Your task to perform on an android device: turn on data saver in the chrome app Image 0: 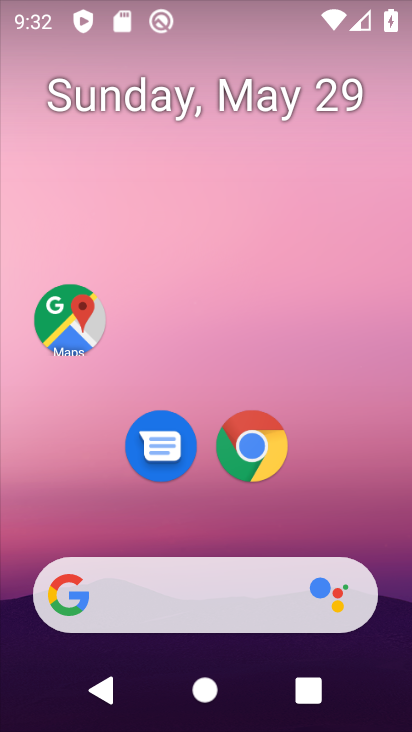
Step 0: click (250, 460)
Your task to perform on an android device: turn on data saver in the chrome app Image 1: 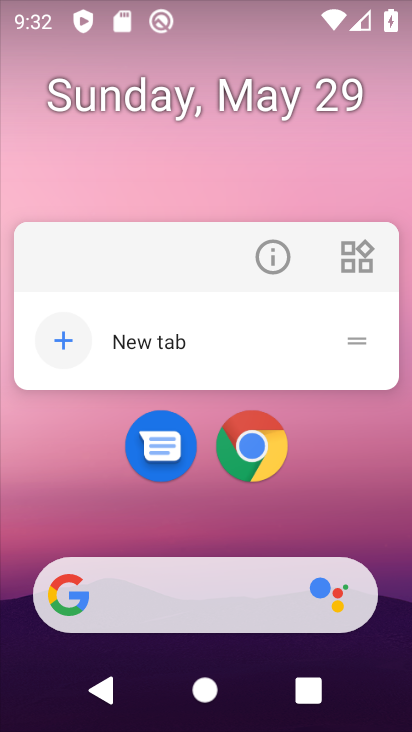
Step 1: click (268, 455)
Your task to perform on an android device: turn on data saver in the chrome app Image 2: 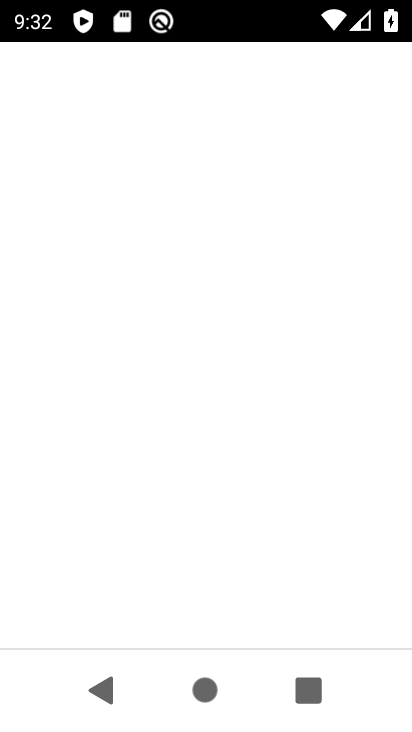
Step 2: click (257, 450)
Your task to perform on an android device: turn on data saver in the chrome app Image 3: 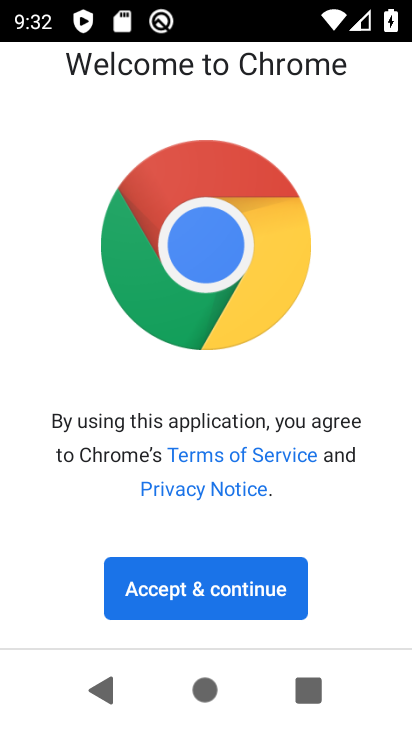
Step 3: click (242, 584)
Your task to perform on an android device: turn on data saver in the chrome app Image 4: 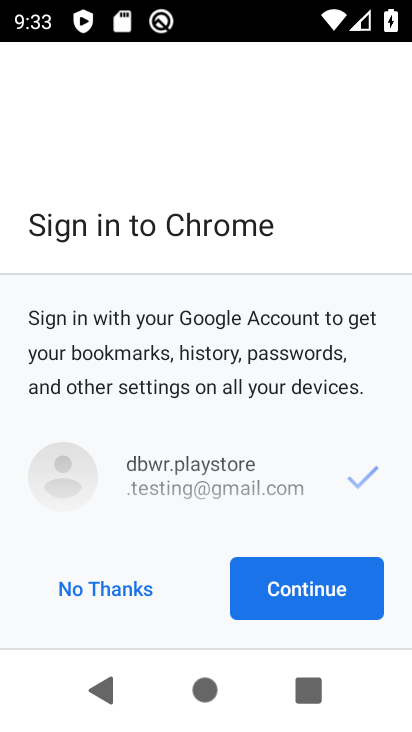
Step 4: click (281, 596)
Your task to perform on an android device: turn on data saver in the chrome app Image 5: 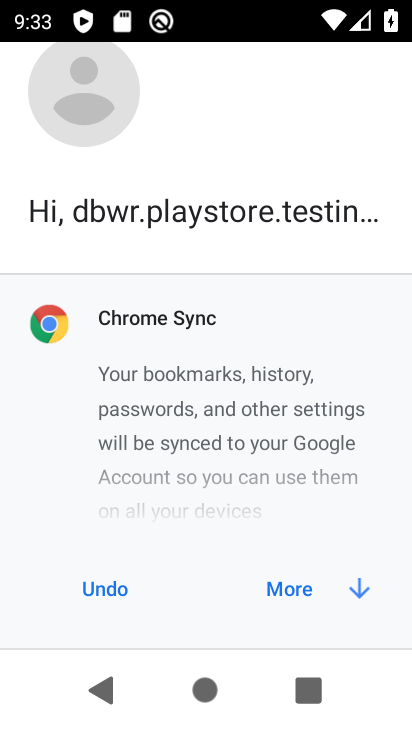
Step 5: click (297, 597)
Your task to perform on an android device: turn on data saver in the chrome app Image 6: 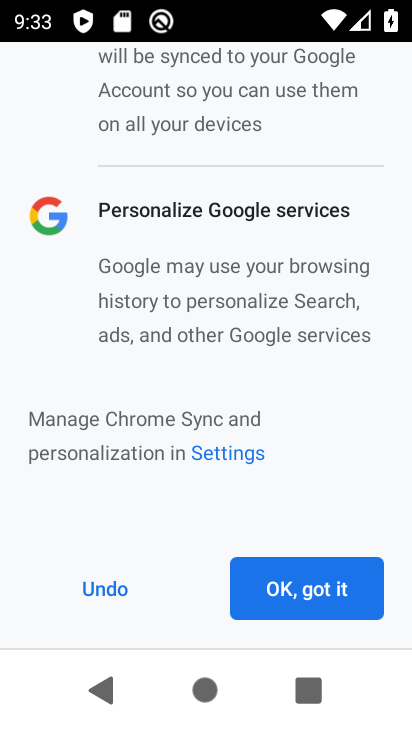
Step 6: click (297, 597)
Your task to perform on an android device: turn on data saver in the chrome app Image 7: 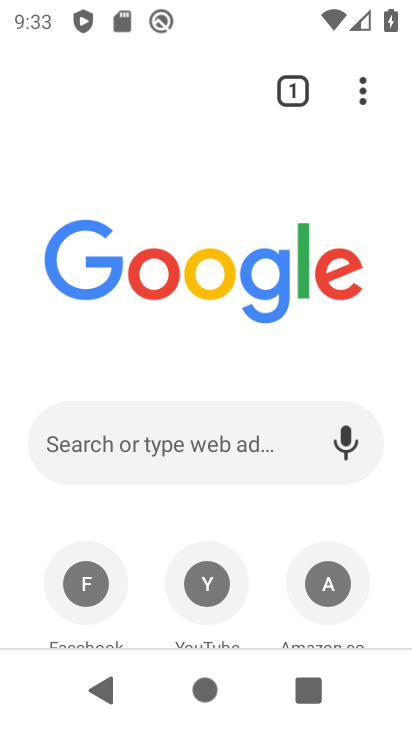
Step 7: click (362, 90)
Your task to perform on an android device: turn on data saver in the chrome app Image 8: 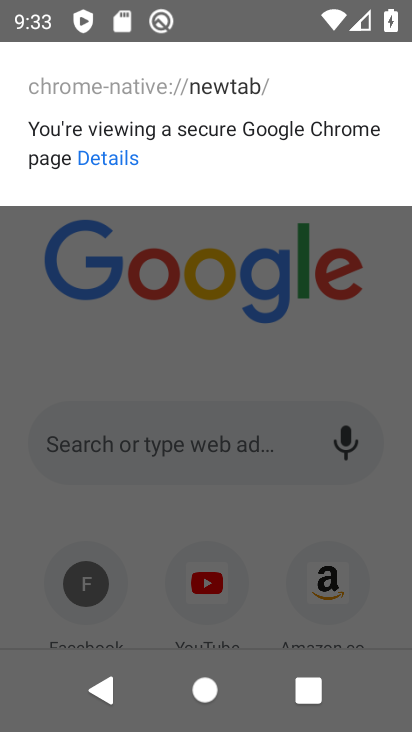
Step 8: click (383, 327)
Your task to perform on an android device: turn on data saver in the chrome app Image 9: 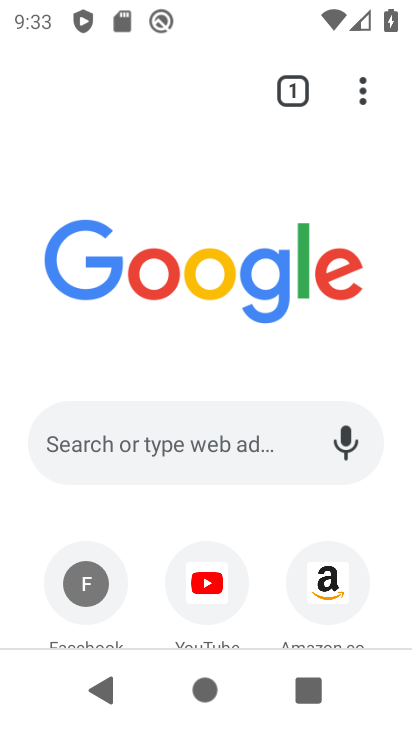
Step 9: click (355, 92)
Your task to perform on an android device: turn on data saver in the chrome app Image 10: 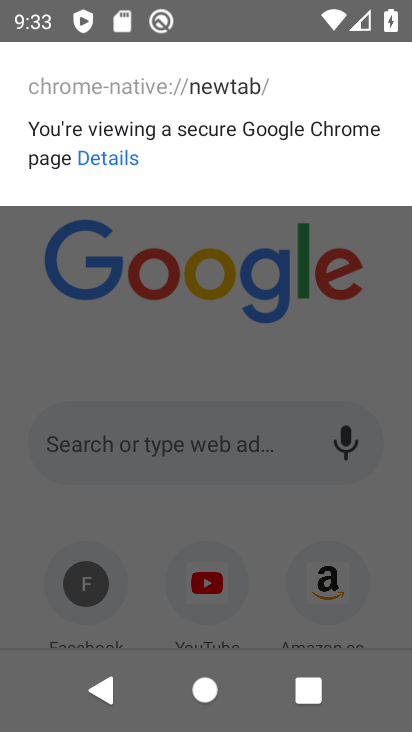
Step 10: click (370, 311)
Your task to perform on an android device: turn on data saver in the chrome app Image 11: 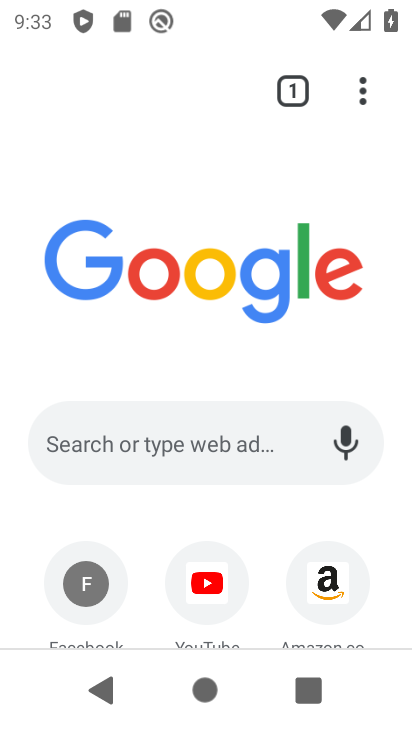
Step 11: click (361, 85)
Your task to perform on an android device: turn on data saver in the chrome app Image 12: 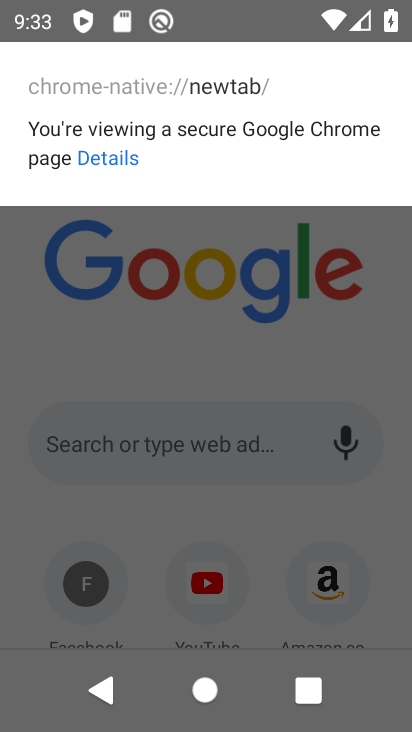
Step 12: click (374, 318)
Your task to perform on an android device: turn on data saver in the chrome app Image 13: 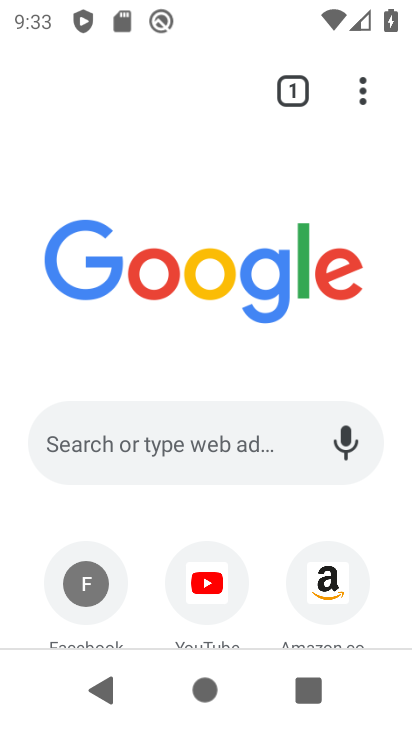
Step 13: click (362, 95)
Your task to perform on an android device: turn on data saver in the chrome app Image 14: 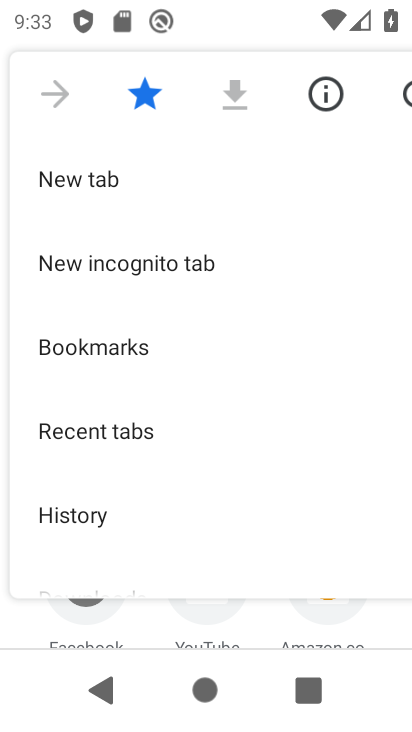
Step 14: drag from (180, 459) to (178, 117)
Your task to perform on an android device: turn on data saver in the chrome app Image 15: 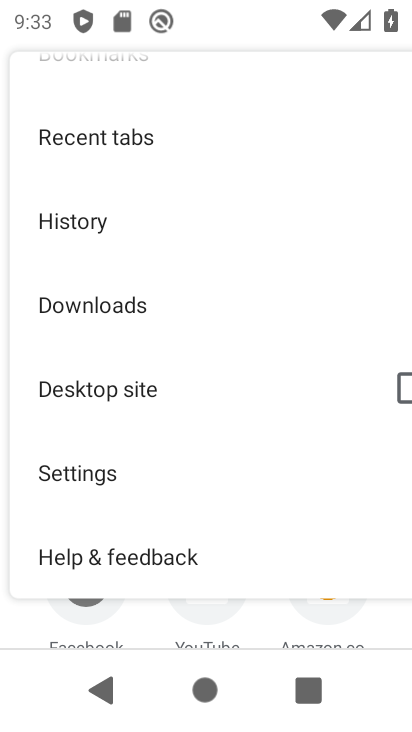
Step 15: click (122, 471)
Your task to perform on an android device: turn on data saver in the chrome app Image 16: 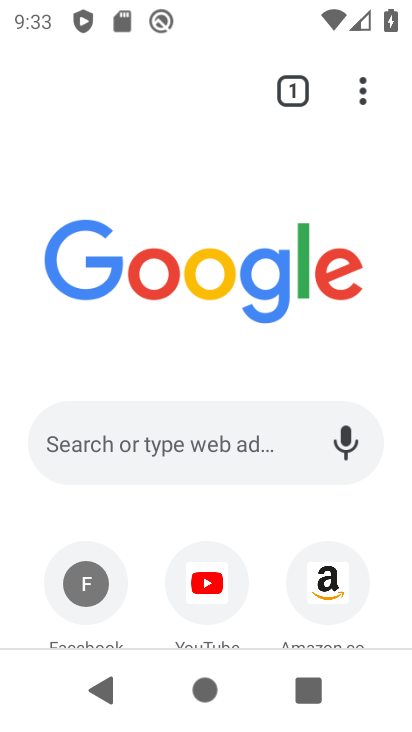
Step 16: click (77, 471)
Your task to perform on an android device: turn on data saver in the chrome app Image 17: 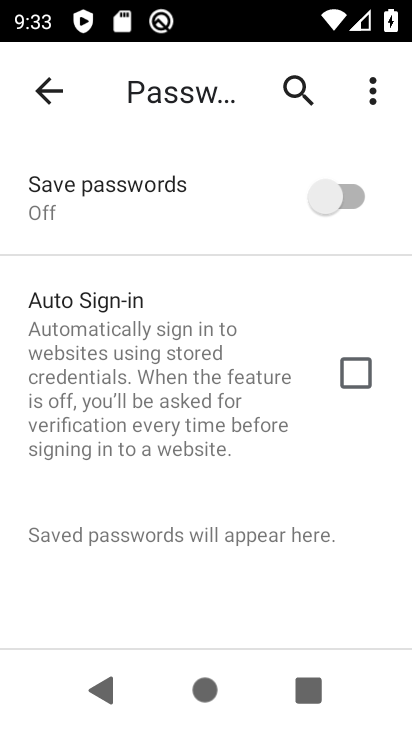
Step 17: click (34, 89)
Your task to perform on an android device: turn on data saver in the chrome app Image 18: 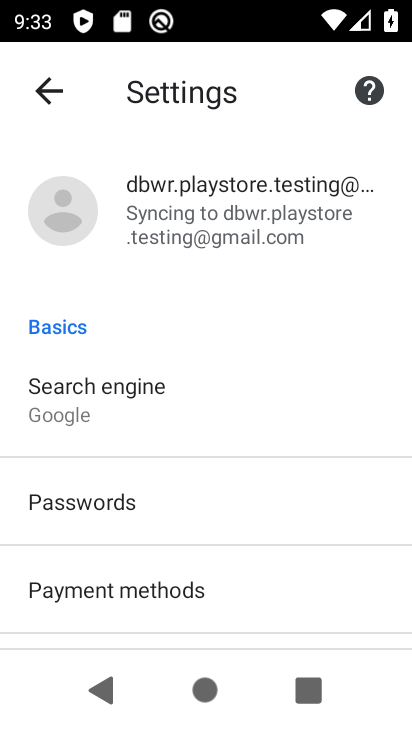
Step 18: drag from (179, 284) to (180, 219)
Your task to perform on an android device: turn on data saver in the chrome app Image 19: 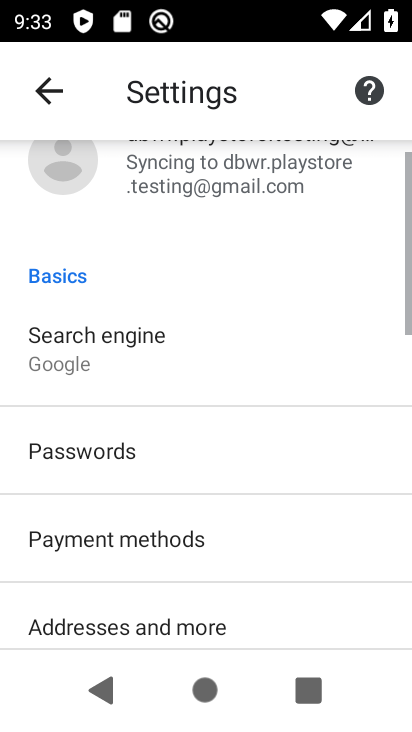
Step 19: drag from (192, 623) to (181, 312)
Your task to perform on an android device: turn on data saver in the chrome app Image 20: 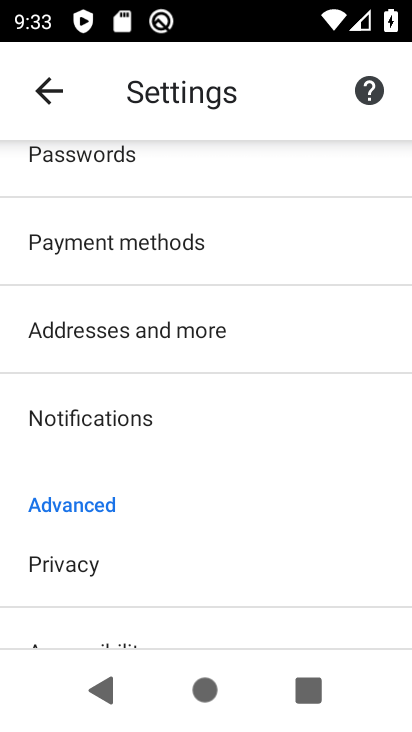
Step 20: drag from (196, 385) to (216, 170)
Your task to perform on an android device: turn on data saver in the chrome app Image 21: 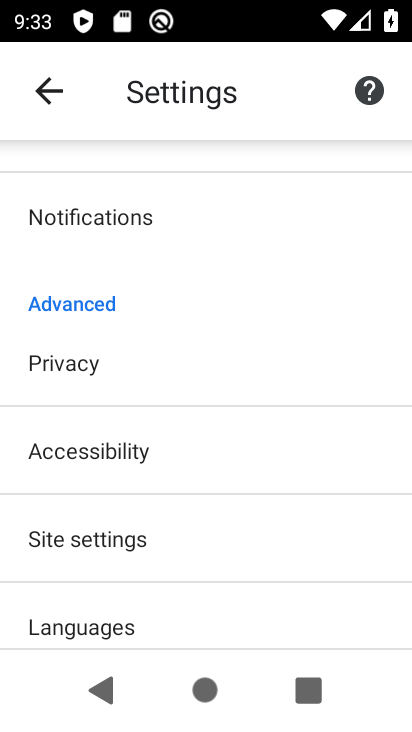
Step 21: drag from (205, 456) to (240, 120)
Your task to perform on an android device: turn on data saver in the chrome app Image 22: 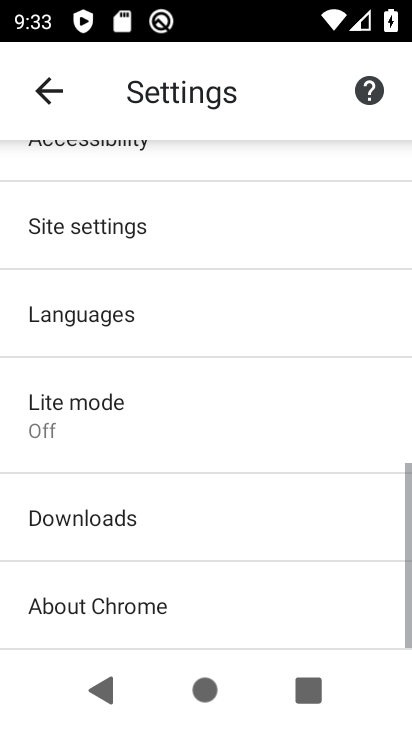
Step 22: drag from (172, 413) to (195, 173)
Your task to perform on an android device: turn on data saver in the chrome app Image 23: 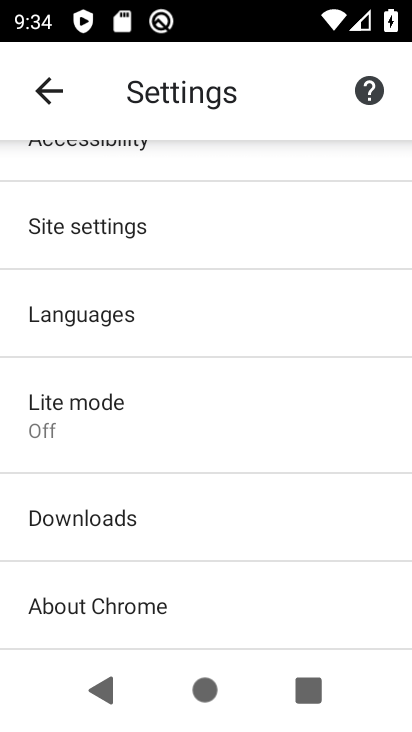
Step 23: click (83, 418)
Your task to perform on an android device: turn on data saver in the chrome app Image 24: 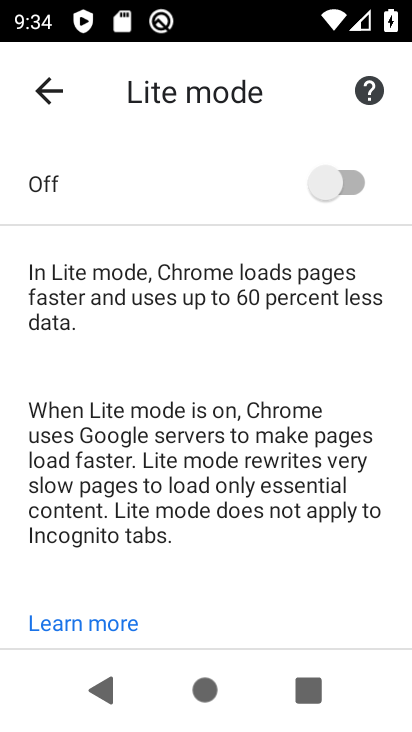
Step 24: click (342, 185)
Your task to perform on an android device: turn on data saver in the chrome app Image 25: 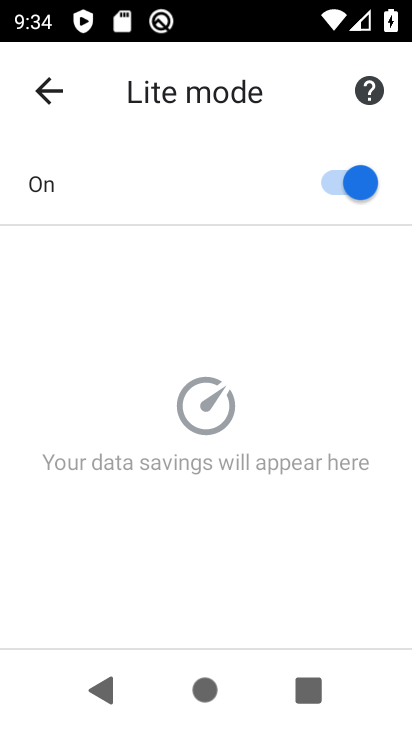
Step 25: task complete